Your task to perform on an android device: snooze an email in the gmail app Image 0: 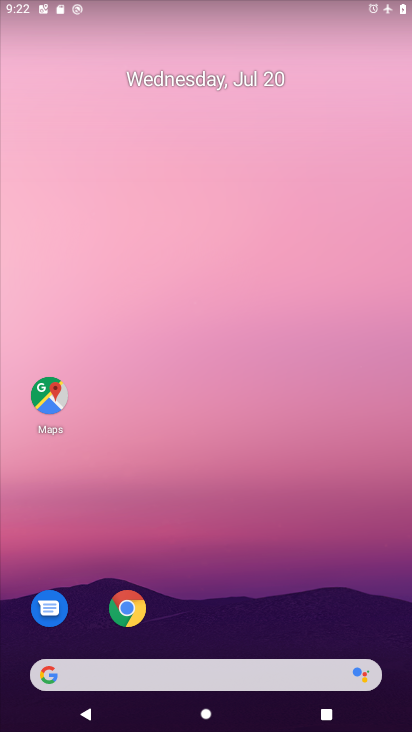
Step 0: drag from (277, 518) to (302, 146)
Your task to perform on an android device: snooze an email in the gmail app Image 1: 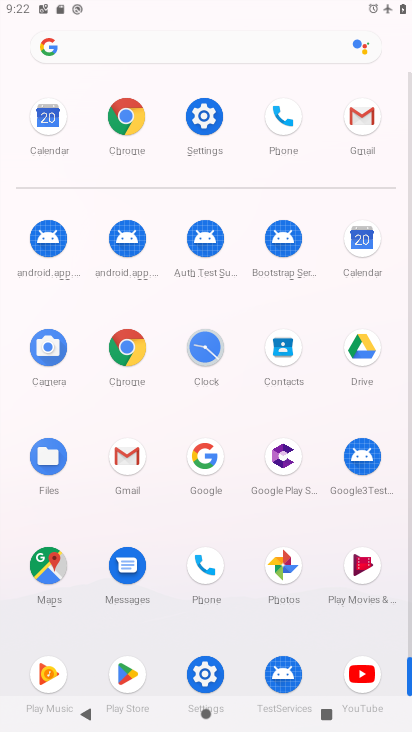
Step 1: click (359, 112)
Your task to perform on an android device: snooze an email in the gmail app Image 2: 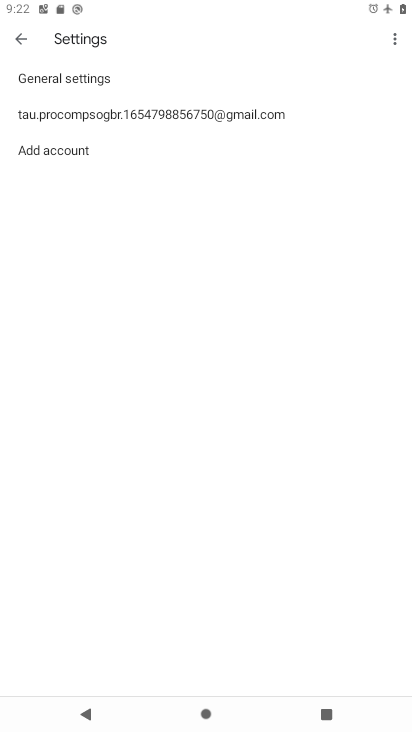
Step 2: click (100, 100)
Your task to perform on an android device: snooze an email in the gmail app Image 3: 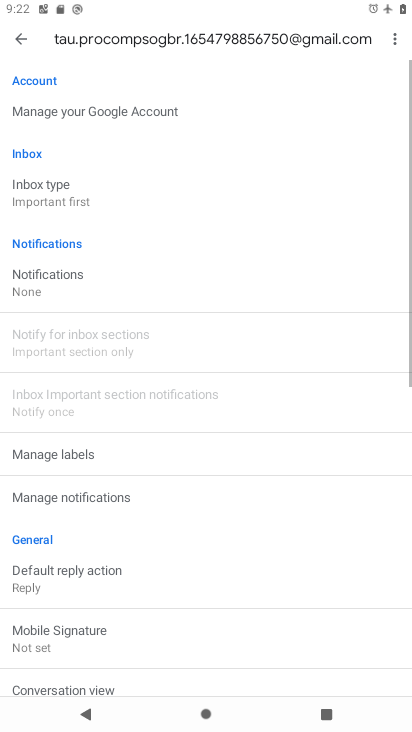
Step 3: click (23, 33)
Your task to perform on an android device: snooze an email in the gmail app Image 4: 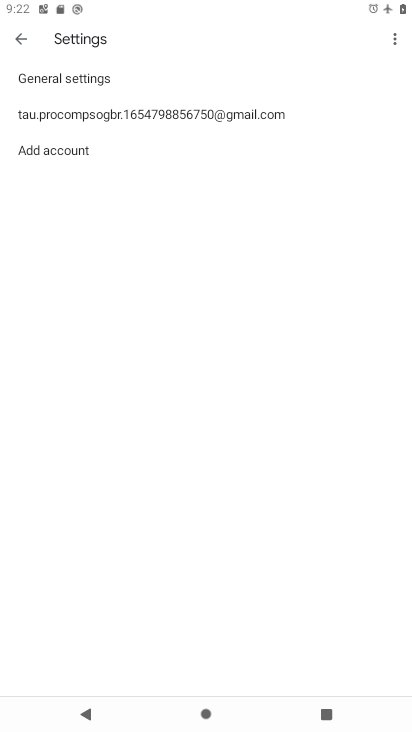
Step 4: click (23, 33)
Your task to perform on an android device: snooze an email in the gmail app Image 5: 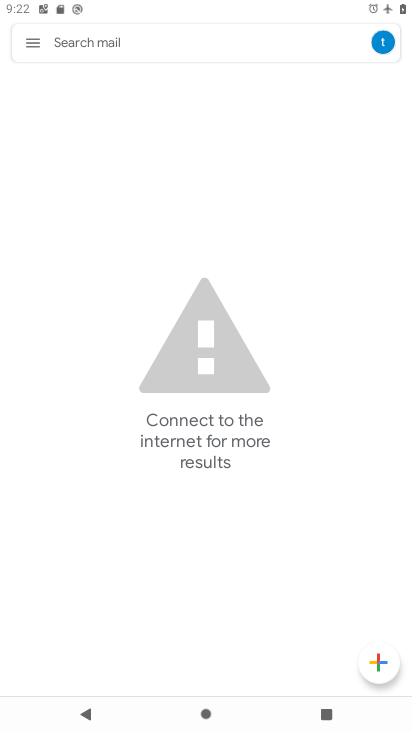
Step 5: click (33, 42)
Your task to perform on an android device: snooze an email in the gmail app Image 6: 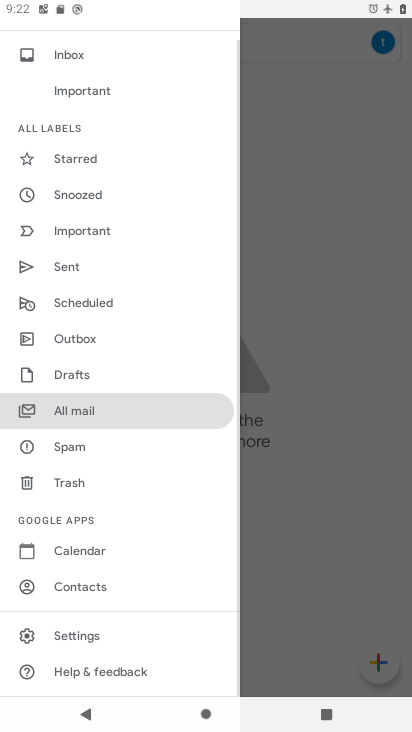
Step 6: click (90, 194)
Your task to perform on an android device: snooze an email in the gmail app Image 7: 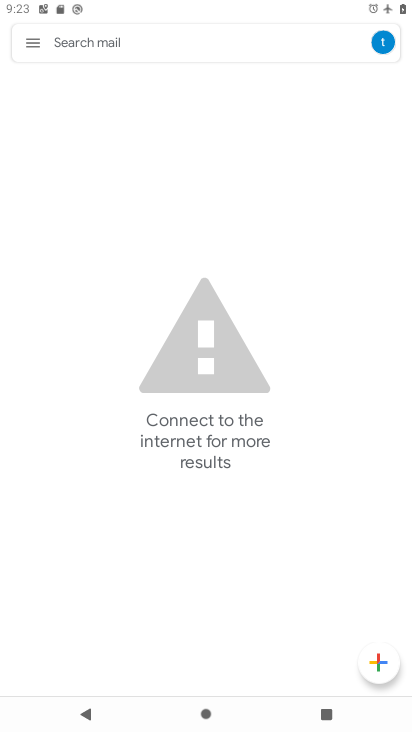
Step 7: click (22, 36)
Your task to perform on an android device: snooze an email in the gmail app Image 8: 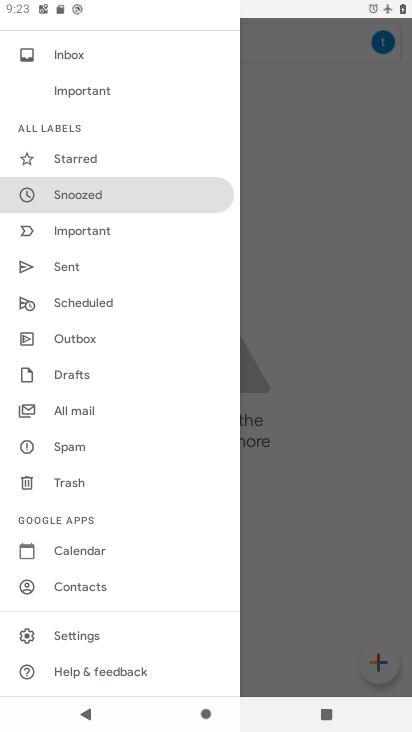
Step 8: task complete